Your task to perform on an android device: turn on the 12-hour format for clock Image 0: 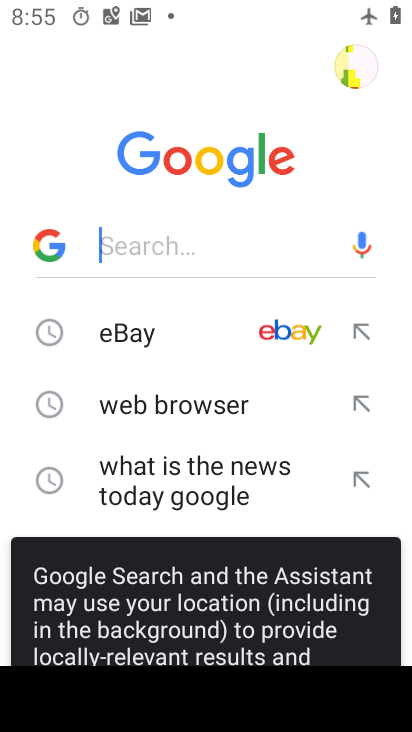
Step 0: press home button
Your task to perform on an android device: turn on the 12-hour format for clock Image 1: 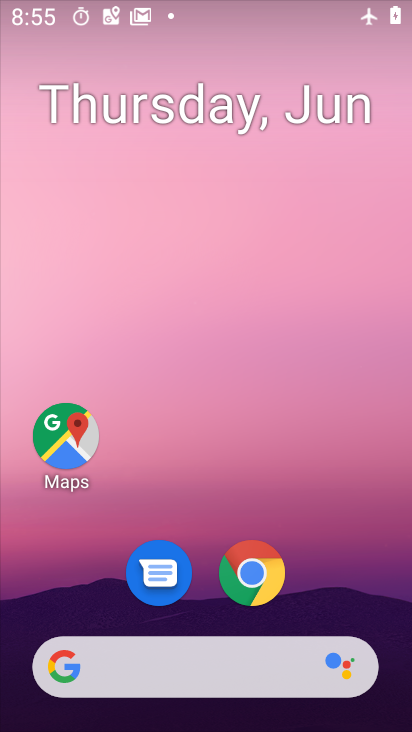
Step 1: drag from (233, 570) to (225, 260)
Your task to perform on an android device: turn on the 12-hour format for clock Image 2: 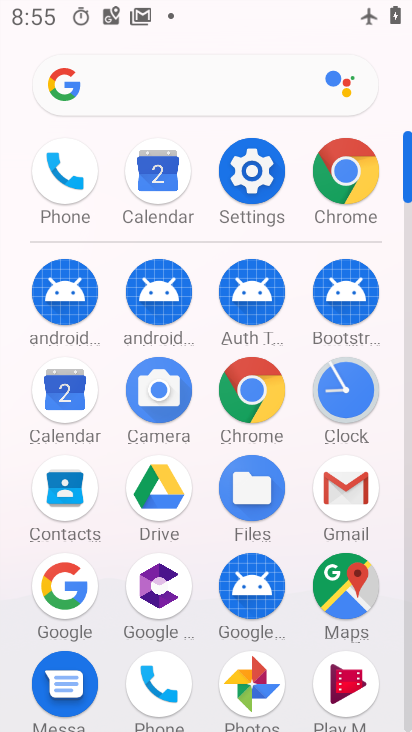
Step 2: click (341, 371)
Your task to perform on an android device: turn on the 12-hour format for clock Image 3: 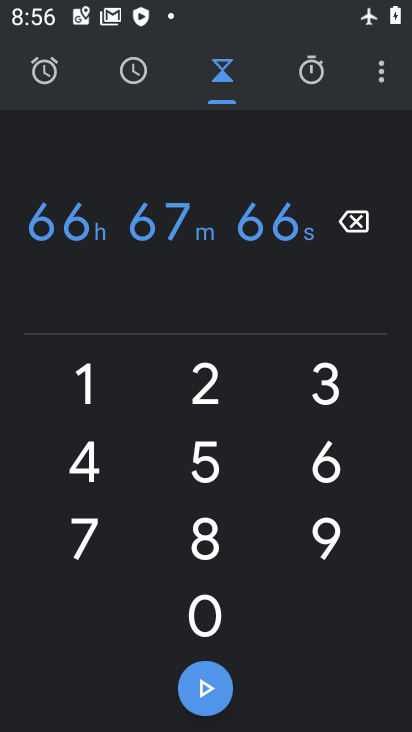
Step 3: click (390, 77)
Your task to perform on an android device: turn on the 12-hour format for clock Image 4: 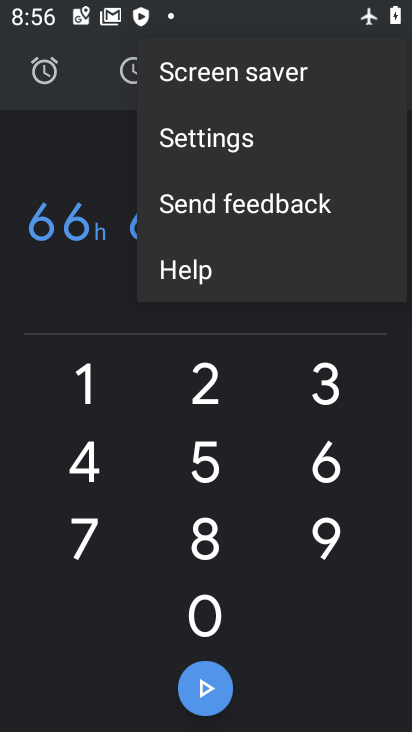
Step 4: click (243, 147)
Your task to perform on an android device: turn on the 12-hour format for clock Image 5: 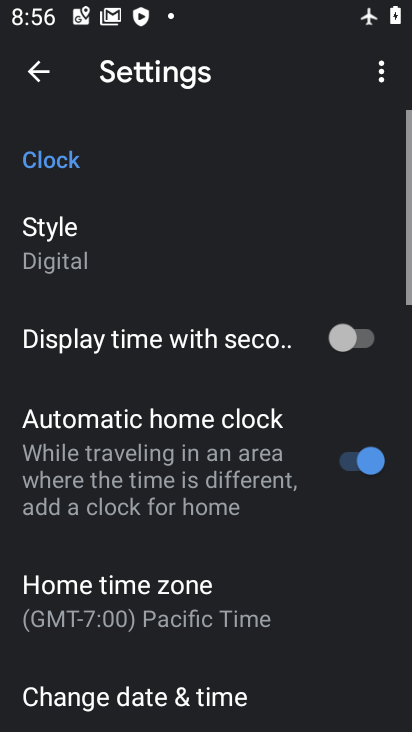
Step 5: drag from (282, 575) to (296, 114)
Your task to perform on an android device: turn on the 12-hour format for clock Image 6: 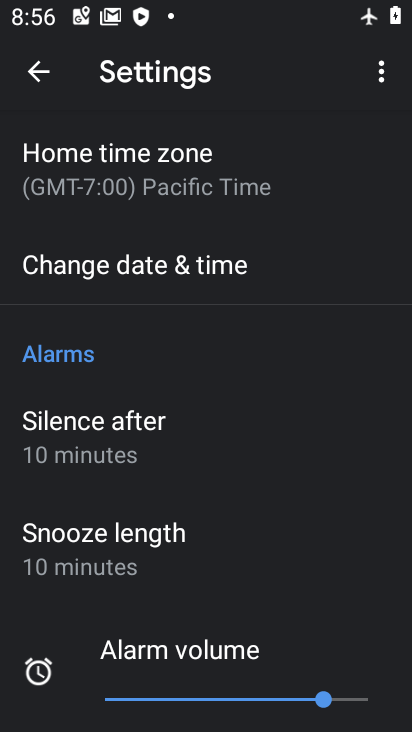
Step 6: click (176, 280)
Your task to perform on an android device: turn on the 12-hour format for clock Image 7: 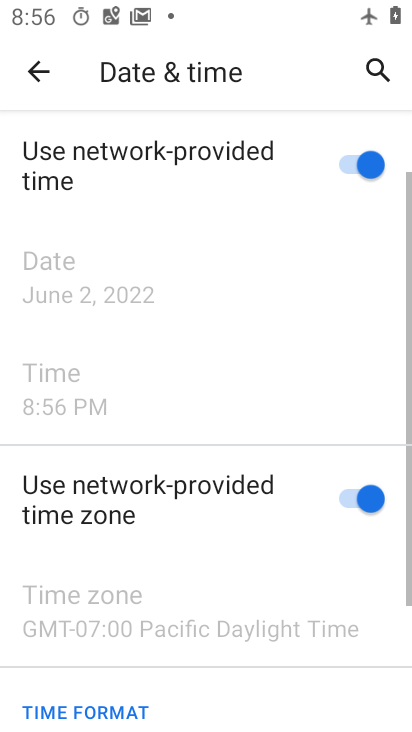
Step 7: drag from (312, 577) to (283, 272)
Your task to perform on an android device: turn on the 12-hour format for clock Image 8: 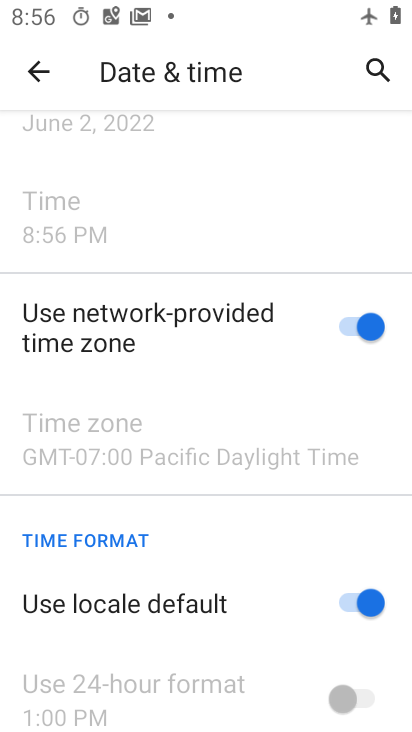
Step 8: click (337, 582)
Your task to perform on an android device: turn on the 12-hour format for clock Image 9: 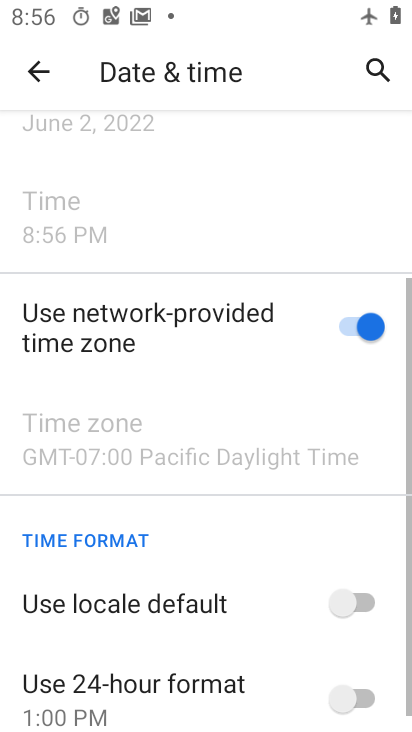
Step 9: click (366, 683)
Your task to perform on an android device: turn on the 12-hour format for clock Image 10: 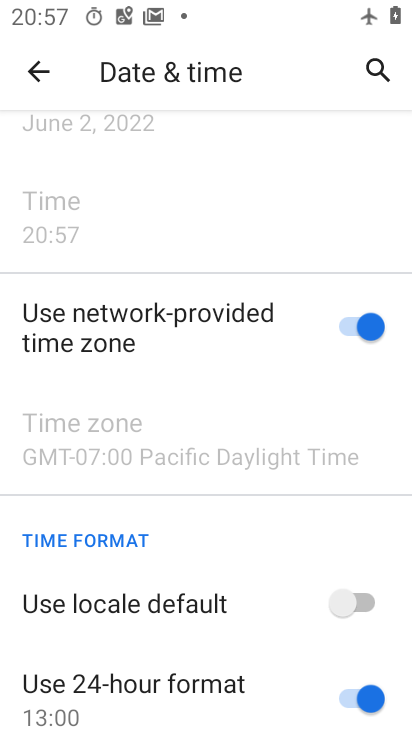
Step 10: task complete